Your task to perform on an android device: add a label to a message in the gmail app Image 0: 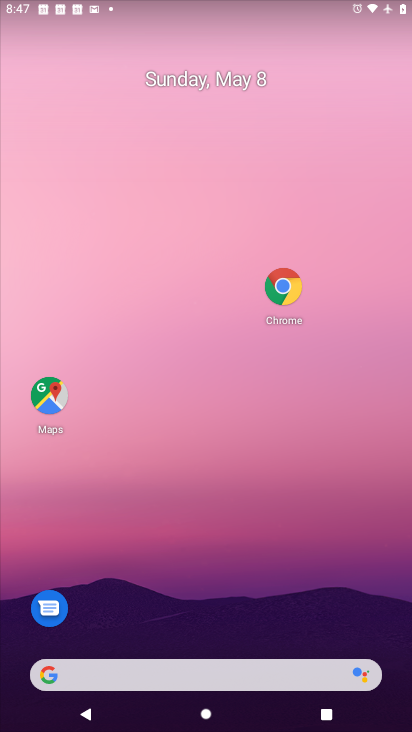
Step 0: drag from (185, 678) to (324, 142)
Your task to perform on an android device: add a label to a message in the gmail app Image 1: 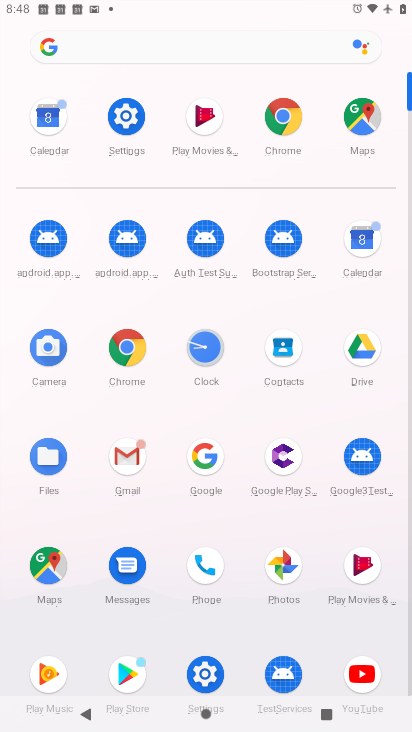
Step 1: click (126, 460)
Your task to perform on an android device: add a label to a message in the gmail app Image 2: 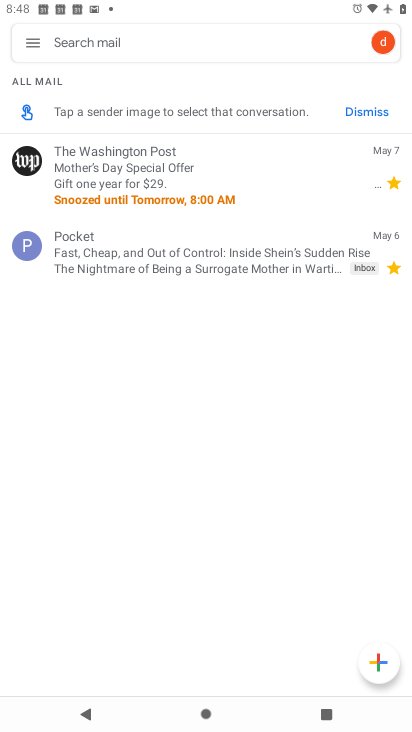
Step 2: click (157, 169)
Your task to perform on an android device: add a label to a message in the gmail app Image 3: 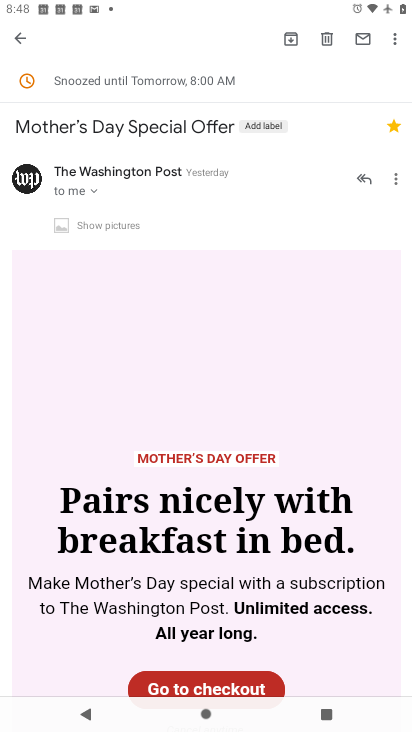
Step 3: click (268, 124)
Your task to perform on an android device: add a label to a message in the gmail app Image 4: 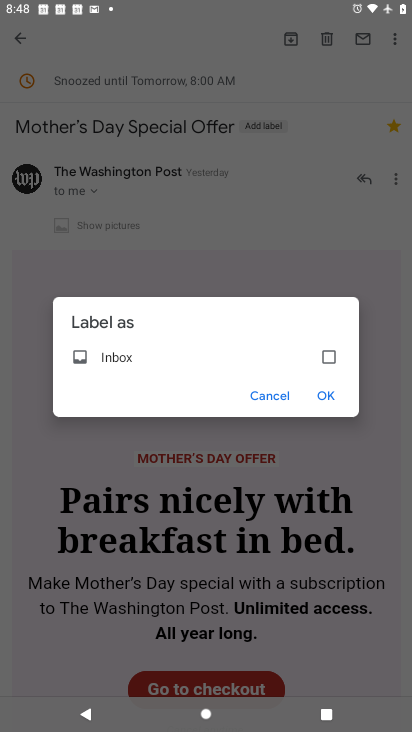
Step 4: click (327, 356)
Your task to perform on an android device: add a label to a message in the gmail app Image 5: 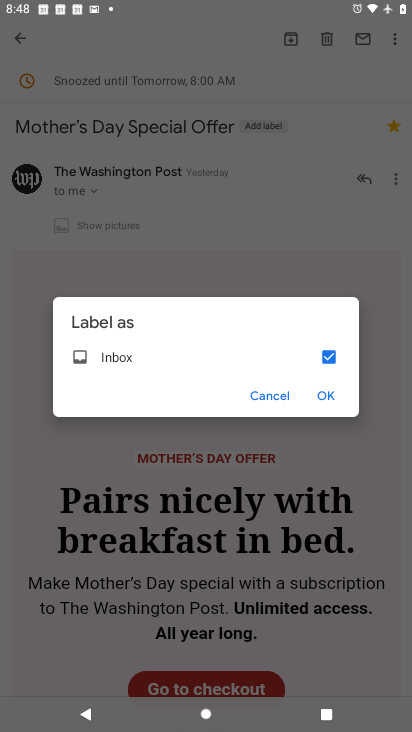
Step 5: click (326, 395)
Your task to perform on an android device: add a label to a message in the gmail app Image 6: 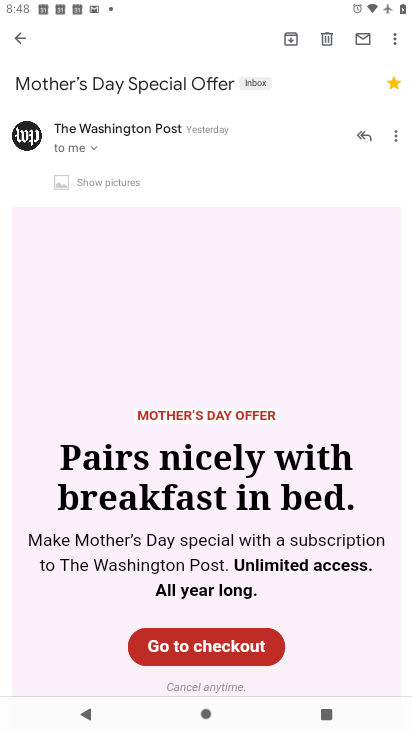
Step 6: task complete